Your task to perform on an android device: Do I have any events tomorrow? Image 0: 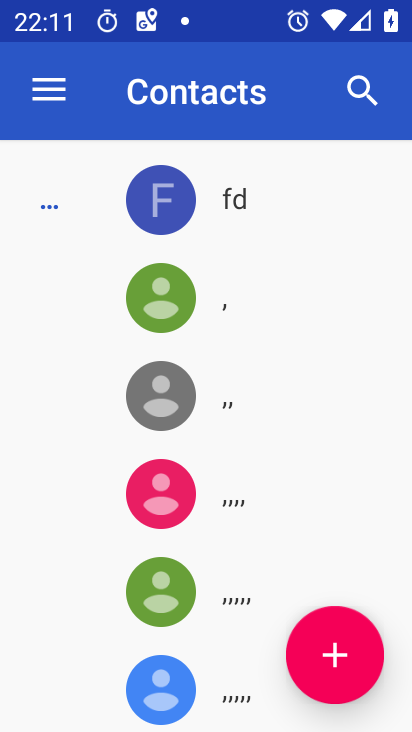
Step 0: press home button
Your task to perform on an android device: Do I have any events tomorrow? Image 1: 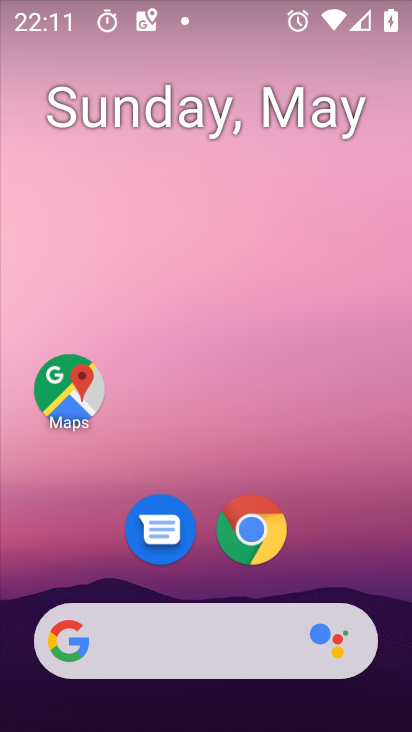
Step 1: drag from (357, 604) to (359, 9)
Your task to perform on an android device: Do I have any events tomorrow? Image 2: 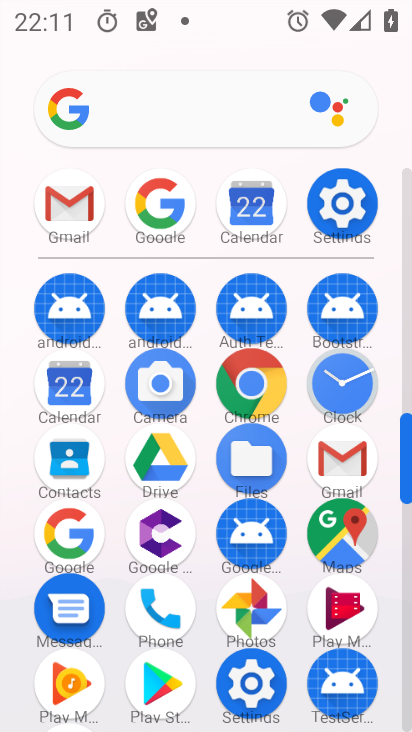
Step 2: click (257, 208)
Your task to perform on an android device: Do I have any events tomorrow? Image 3: 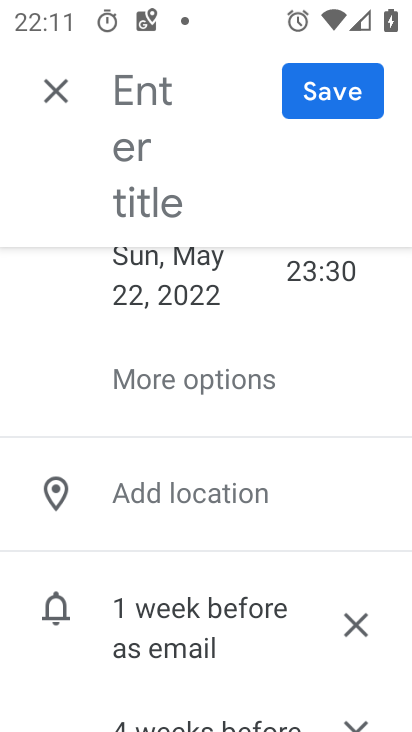
Step 3: click (50, 93)
Your task to perform on an android device: Do I have any events tomorrow? Image 4: 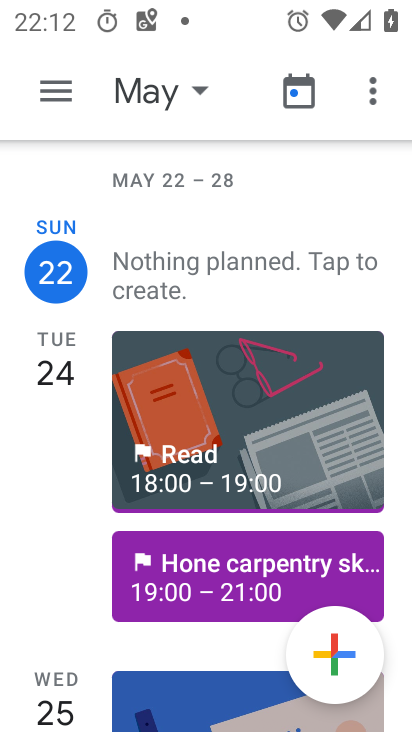
Step 4: click (198, 97)
Your task to perform on an android device: Do I have any events tomorrow? Image 5: 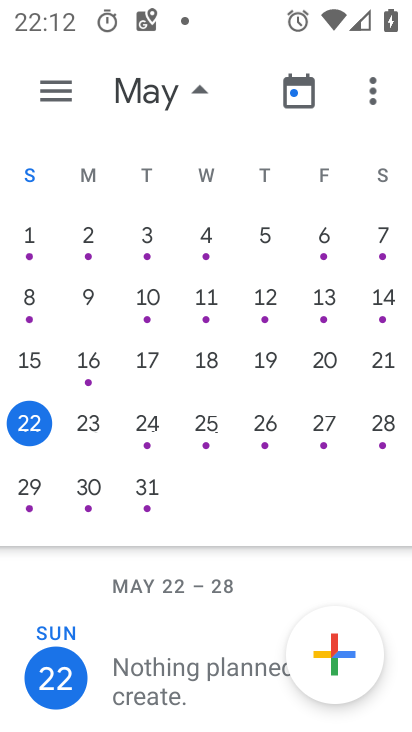
Step 5: click (84, 429)
Your task to perform on an android device: Do I have any events tomorrow? Image 6: 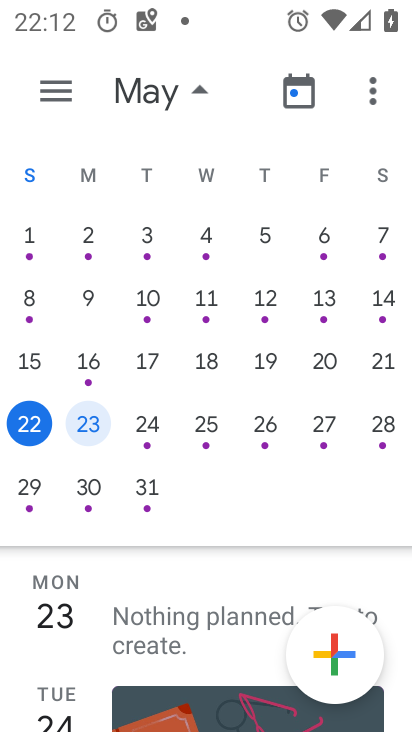
Step 6: click (137, 633)
Your task to perform on an android device: Do I have any events tomorrow? Image 7: 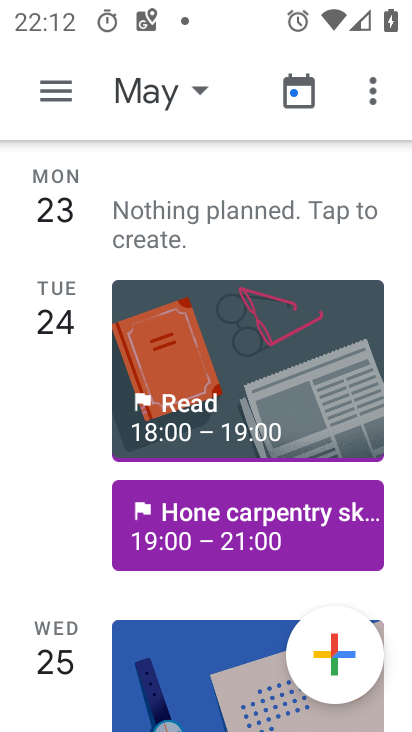
Step 7: click (189, 218)
Your task to perform on an android device: Do I have any events tomorrow? Image 8: 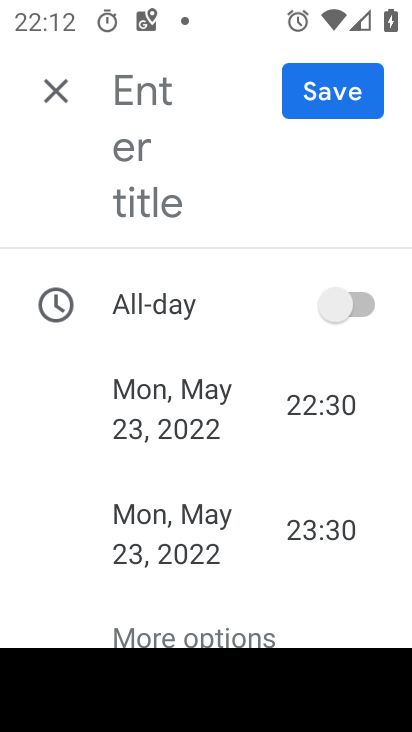
Step 8: task complete